Your task to perform on an android device: Go to wifi settings Image 0: 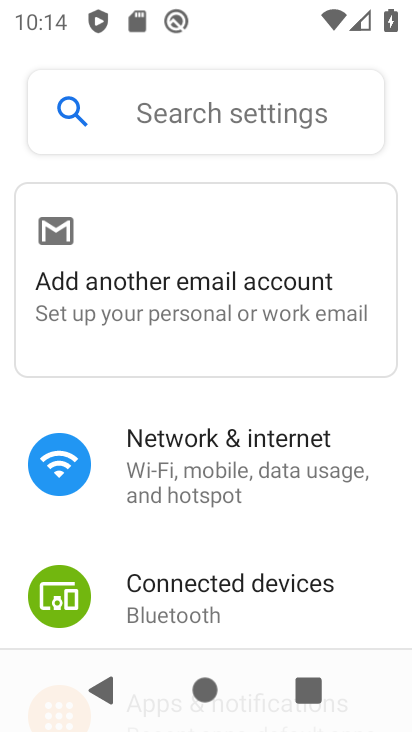
Step 0: click (268, 461)
Your task to perform on an android device: Go to wifi settings Image 1: 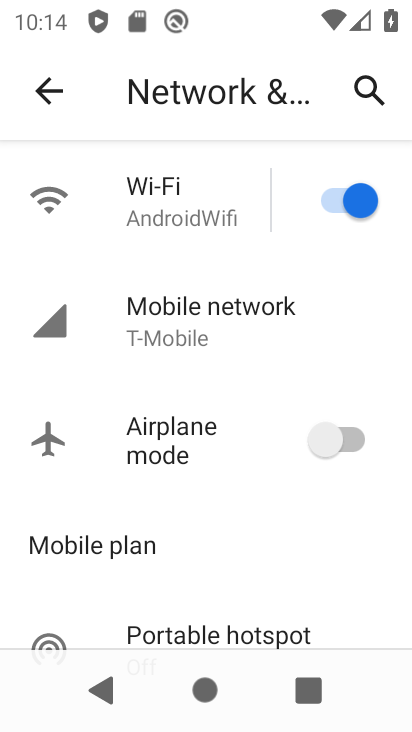
Step 1: click (164, 173)
Your task to perform on an android device: Go to wifi settings Image 2: 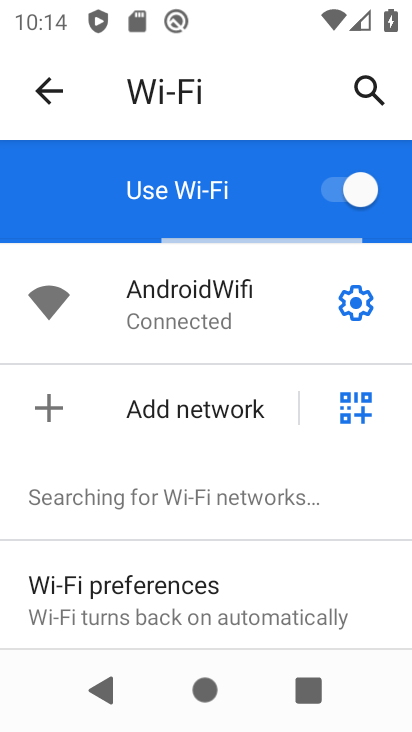
Step 2: task complete